Your task to perform on an android device: Open the calendar and show me this week's events? Image 0: 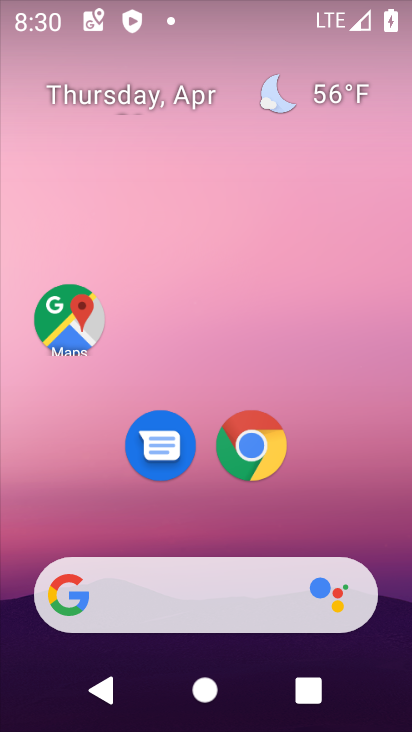
Step 0: drag from (386, 556) to (384, 16)
Your task to perform on an android device: Open the calendar and show me this week's events? Image 1: 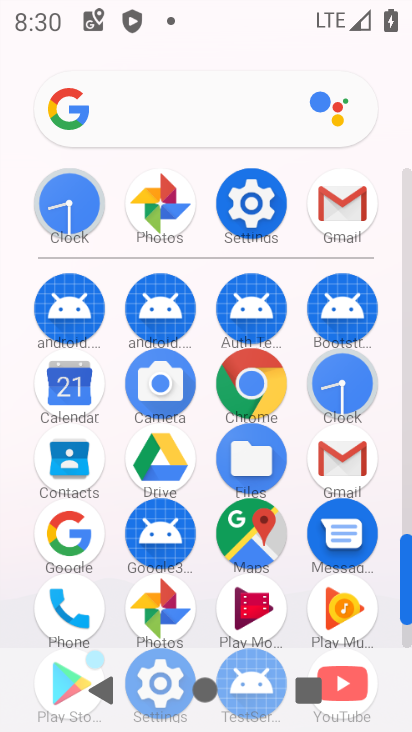
Step 1: click (68, 391)
Your task to perform on an android device: Open the calendar and show me this week's events? Image 2: 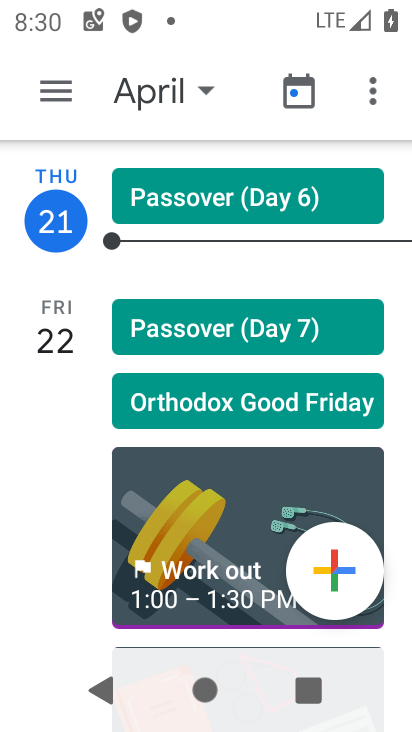
Step 2: click (65, 100)
Your task to perform on an android device: Open the calendar and show me this week's events? Image 3: 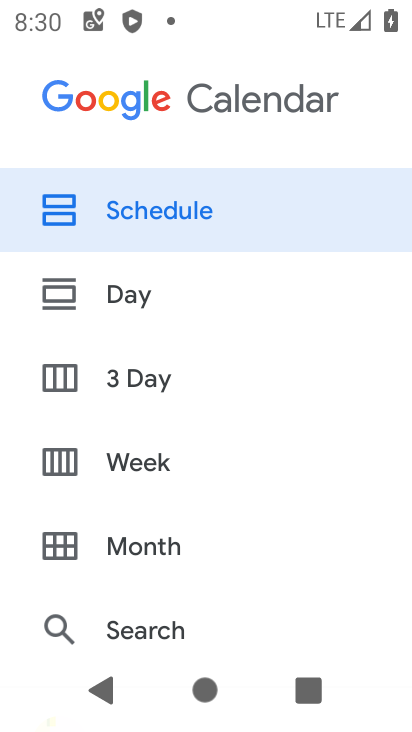
Step 3: click (149, 464)
Your task to perform on an android device: Open the calendar and show me this week's events? Image 4: 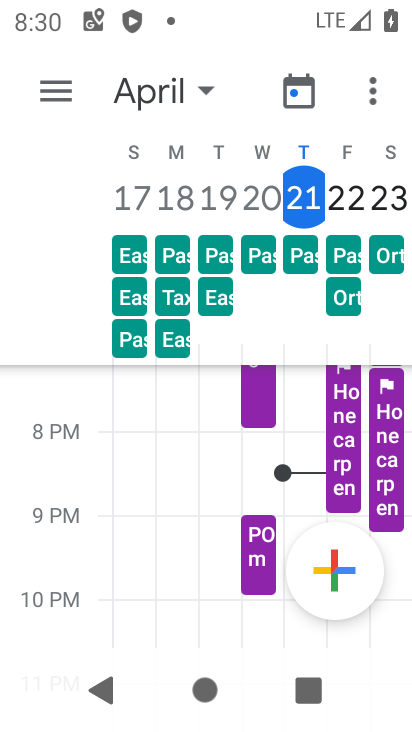
Step 4: click (351, 464)
Your task to perform on an android device: Open the calendar and show me this week's events? Image 5: 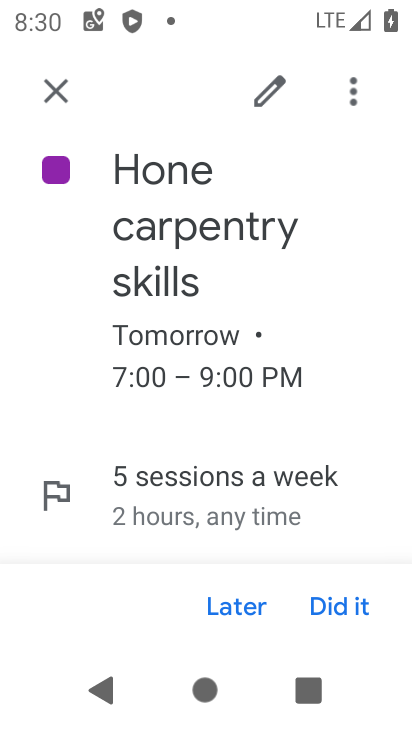
Step 5: task complete